Your task to perform on an android device: turn on sleep mode Image 0: 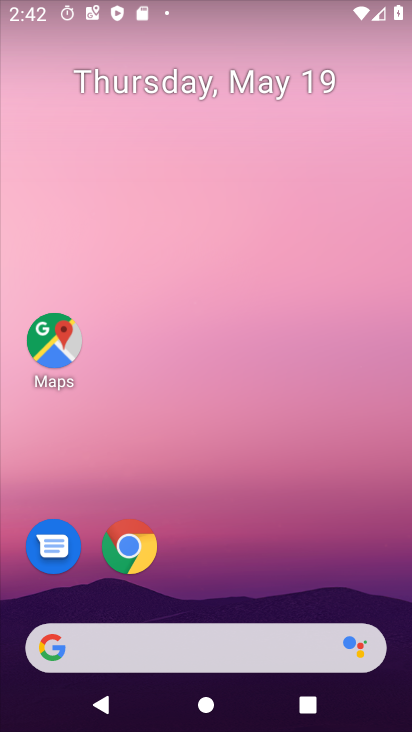
Step 0: drag from (143, 598) to (313, 20)
Your task to perform on an android device: turn on sleep mode Image 1: 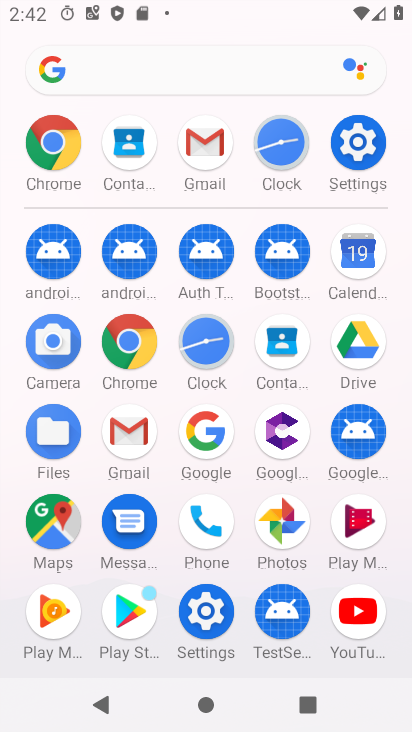
Step 1: click (204, 589)
Your task to perform on an android device: turn on sleep mode Image 2: 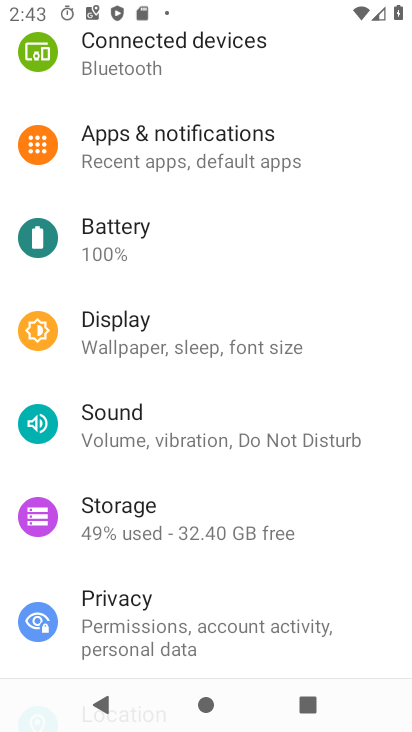
Step 2: task complete